Your task to perform on an android device: delete a single message in the gmail app Image 0: 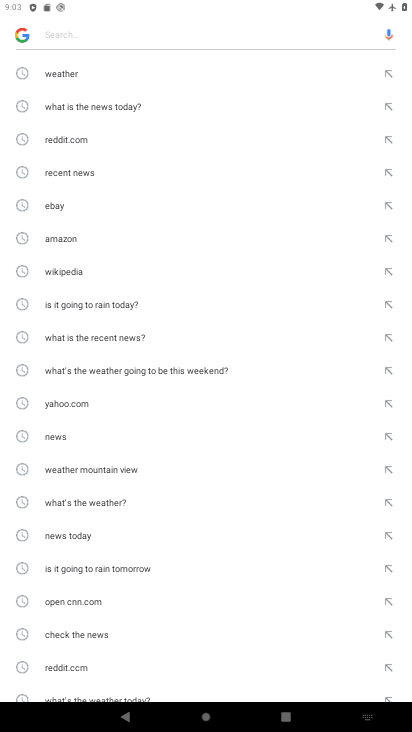
Step 0: press home button
Your task to perform on an android device: delete a single message in the gmail app Image 1: 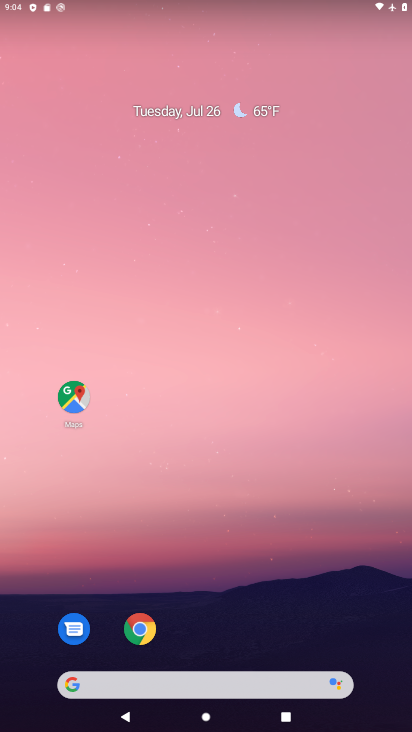
Step 1: drag from (274, 645) to (262, 82)
Your task to perform on an android device: delete a single message in the gmail app Image 2: 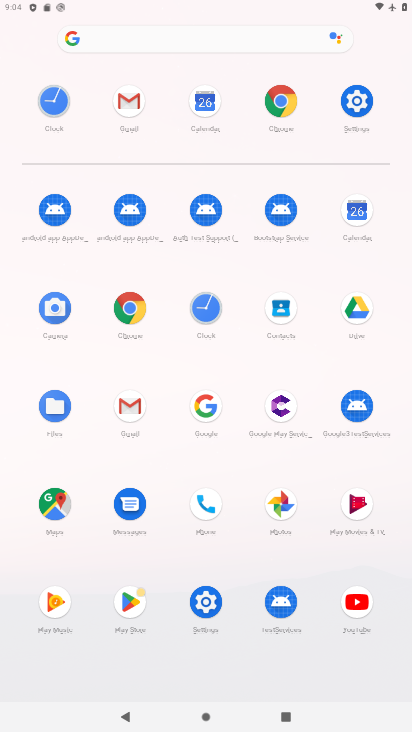
Step 2: click (129, 102)
Your task to perform on an android device: delete a single message in the gmail app Image 3: 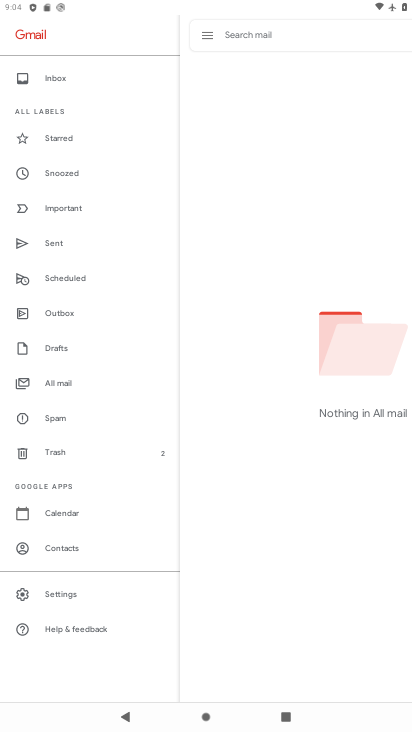
Step 3: click (54, 581)
Your task to perform on an android device: delete a single message in the gmail app Image 4: 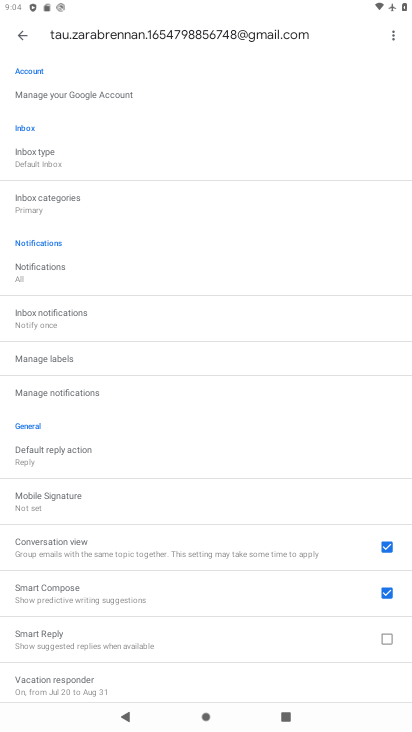
Step 4: click (17, 24)
Your task to perform on an android device: delete a single message in the gmail app Image 5: 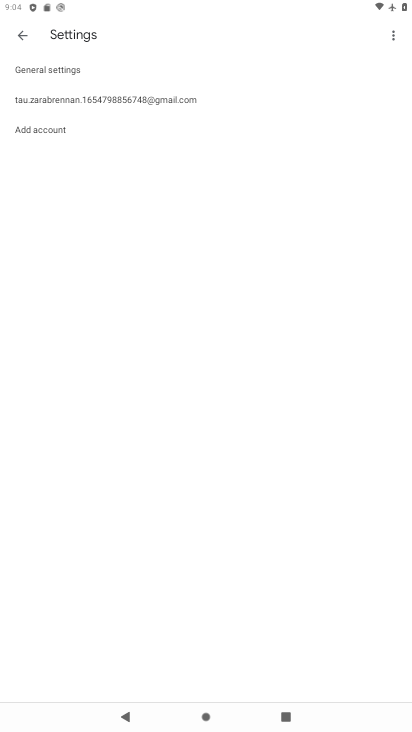
Step 5: click (10, 28)
Your task to perform on an android device: delete a single message in the gmail app Image 6: 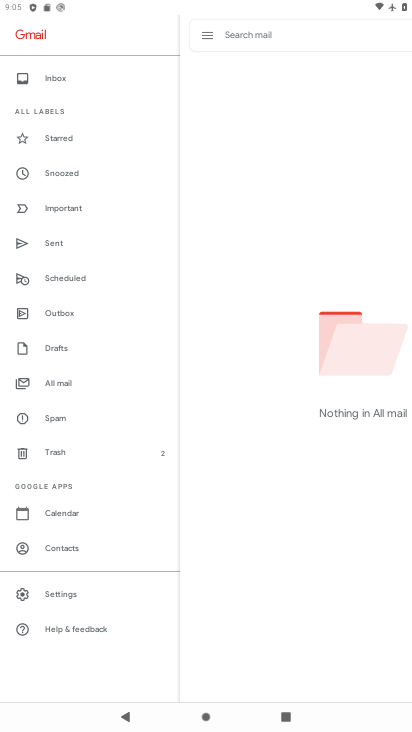
Step 6: click (67, 385)
Your task to perform on an android device: delete a single message in the gmail app Image 7: 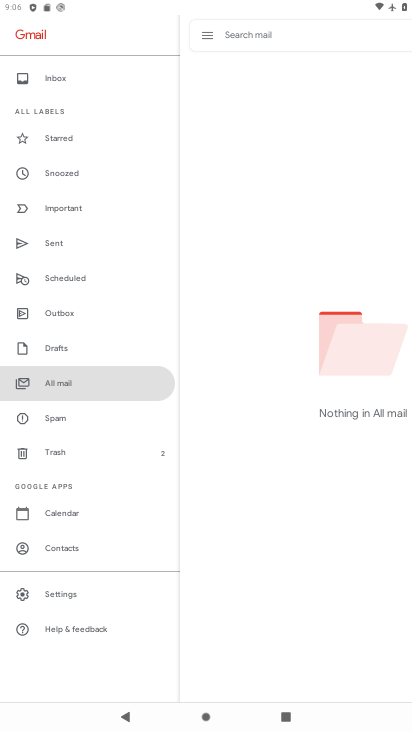
Step 7: task complete